Your task to perform on an android device: Open the calendar app, open the side menu, and click the "Day" option Image 0: 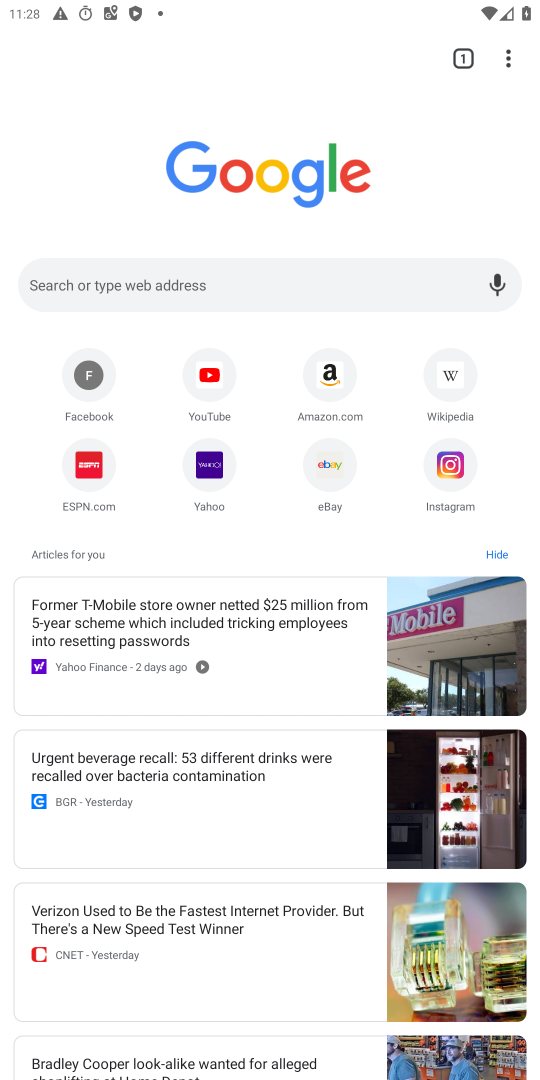
Step 0: press home button
Your task to perform on an android device: Open the calendar app, open the side menu, and click the "Day" option Image 1: 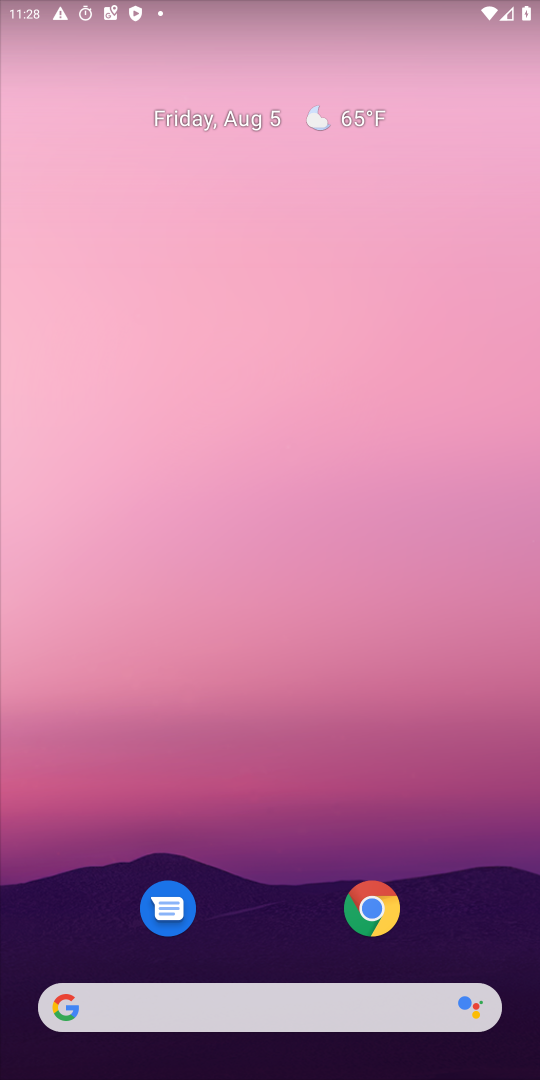
Step 1: drag from (82, 923) to (349, 273)
Your task to perform on an android device: Open the calendar app, open the side menu, and click the "Day" option Image 2: 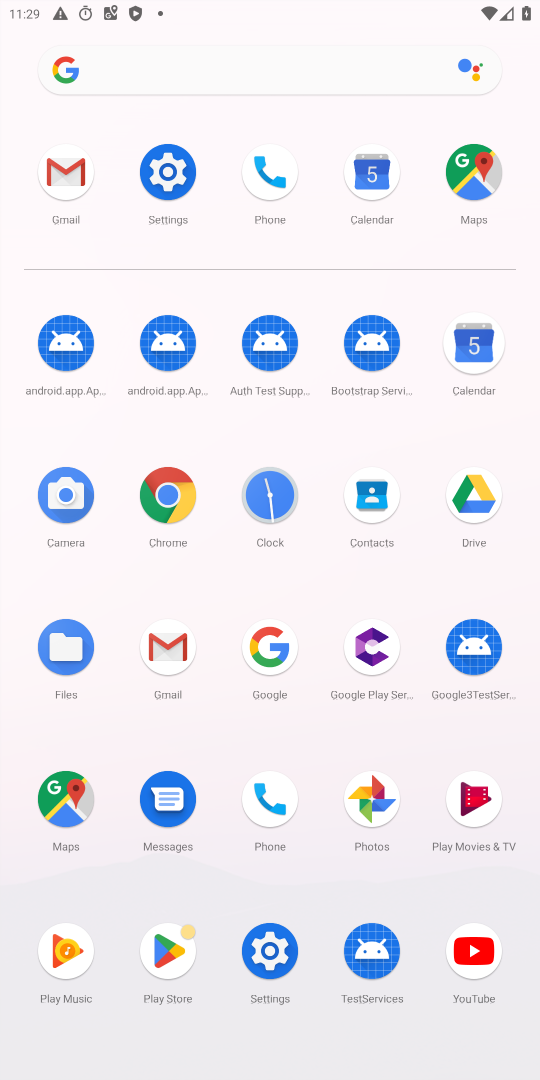
Step 2: click (352, 495)
Your task to perform on an android device: Open the calendar app, open the side menu, and click the "Day" option Image 3: 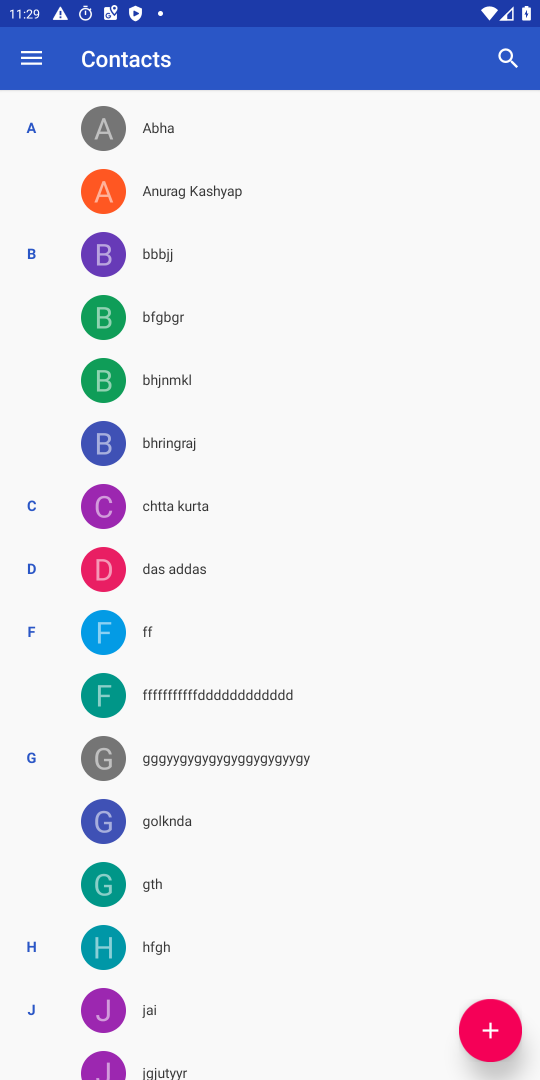
Step 3: press home button
Your task to perform on an android device: Open the calendar app, open the side menu, and click the "Day" option Image 4: 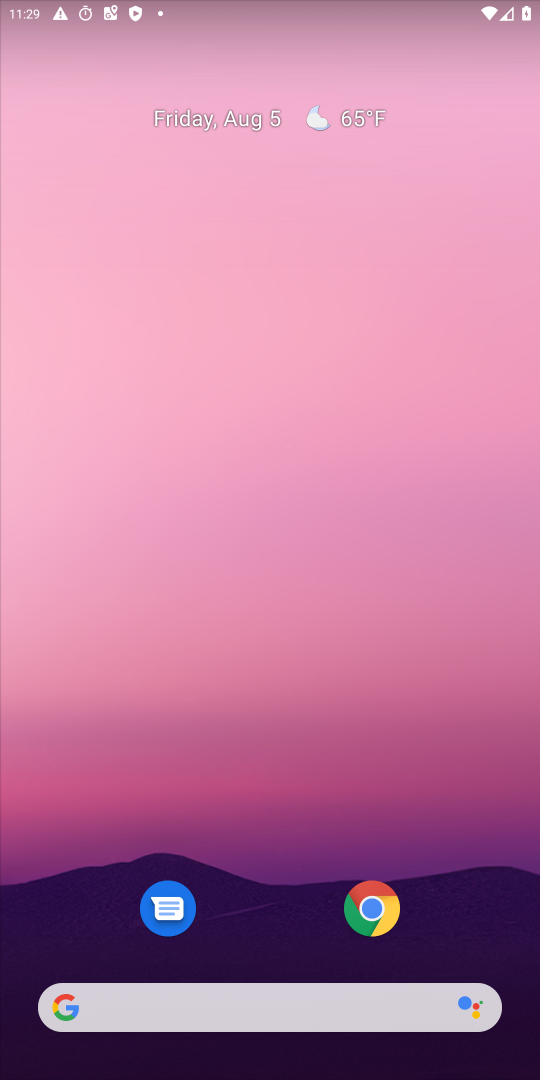
Step 4: click (119, 278)
Your task to perform on an android device: Open the calendar app, open the side menu, and click the "Day" option Image 5: 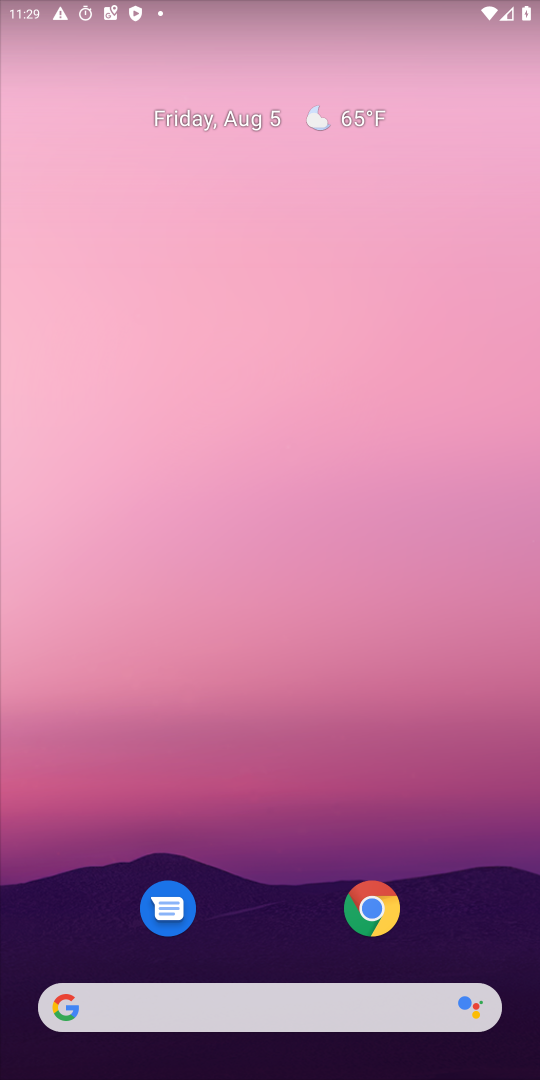
Step 5: drag from (40, 1045) to (354, 193)
Your task to perform on an android device: Open the calendar app, open the side menu, and click the "Day" option Image 6: 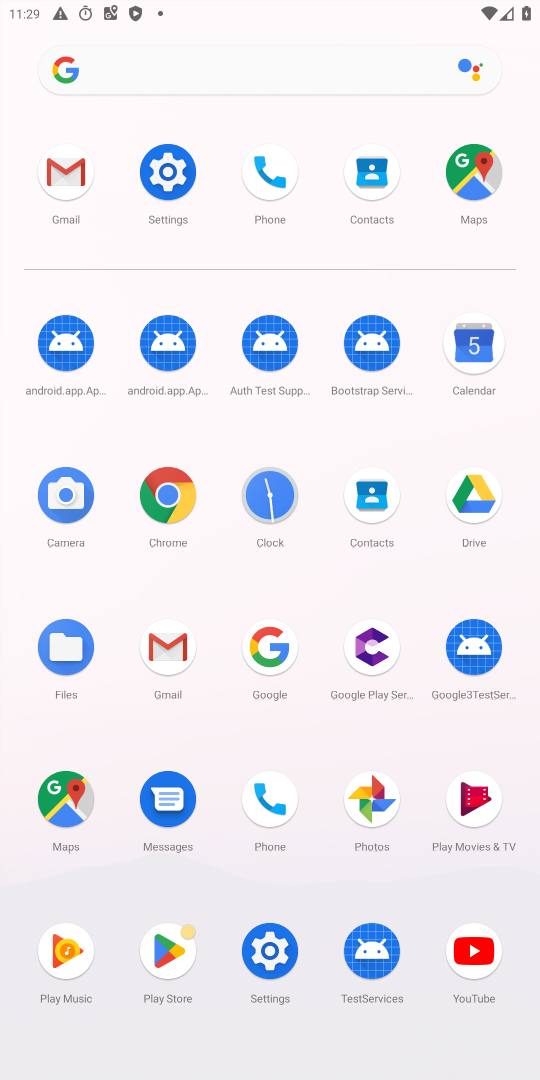
Step 6: click (482, 355)
Your task to perform on an android device: Open the calendar app, open the side menu, and click the "Day" option Image 7: 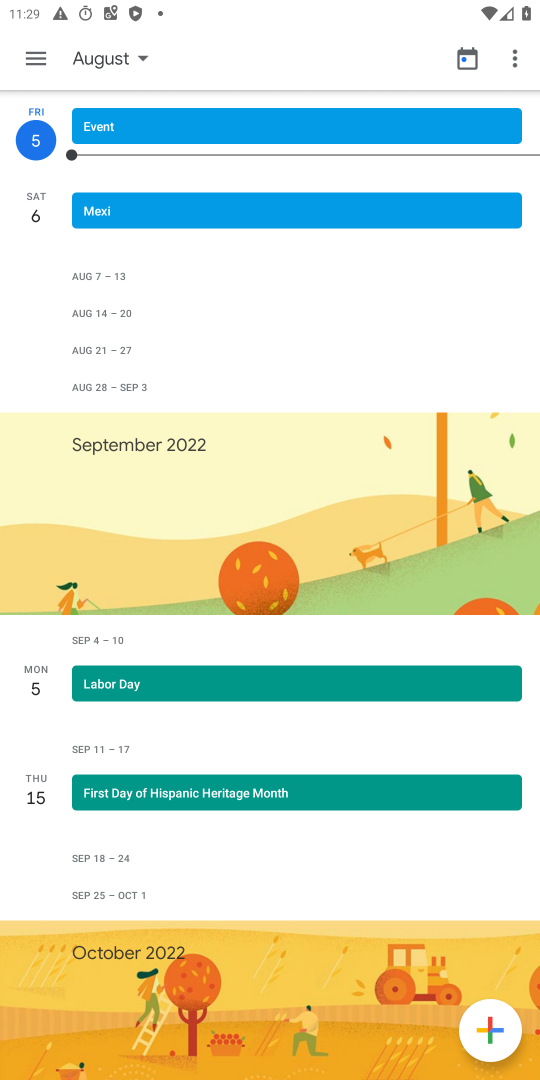
Step 7: click (119, 59)
Your task to perform on an android device: Open the calendar app, open the side menu, and click the "Day" option Image 8: 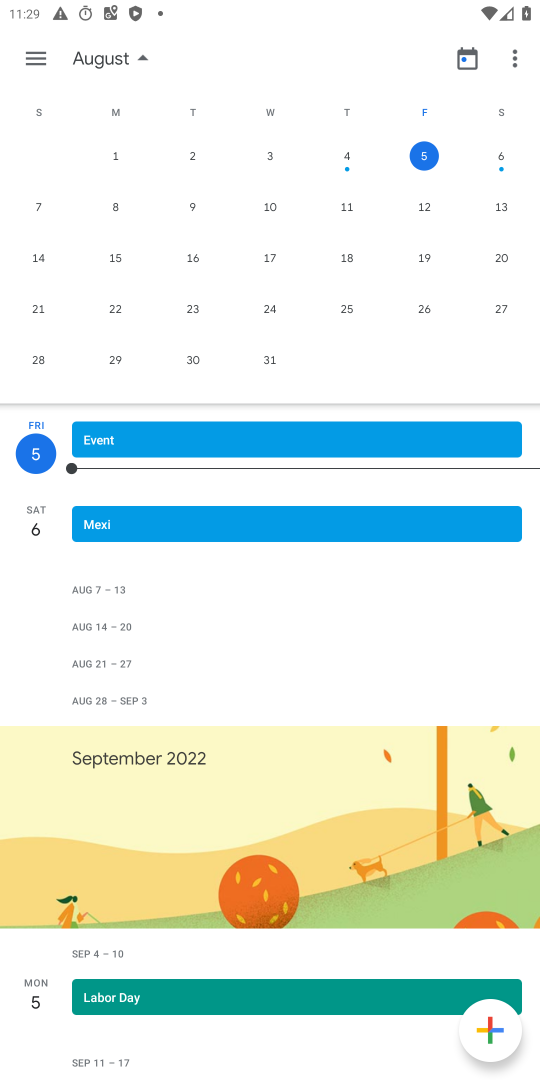
Step 8: click (48, 68)
Your task to perform on an android device: Open the calendar app, open the side menu, and click the "Day" option Image 9: 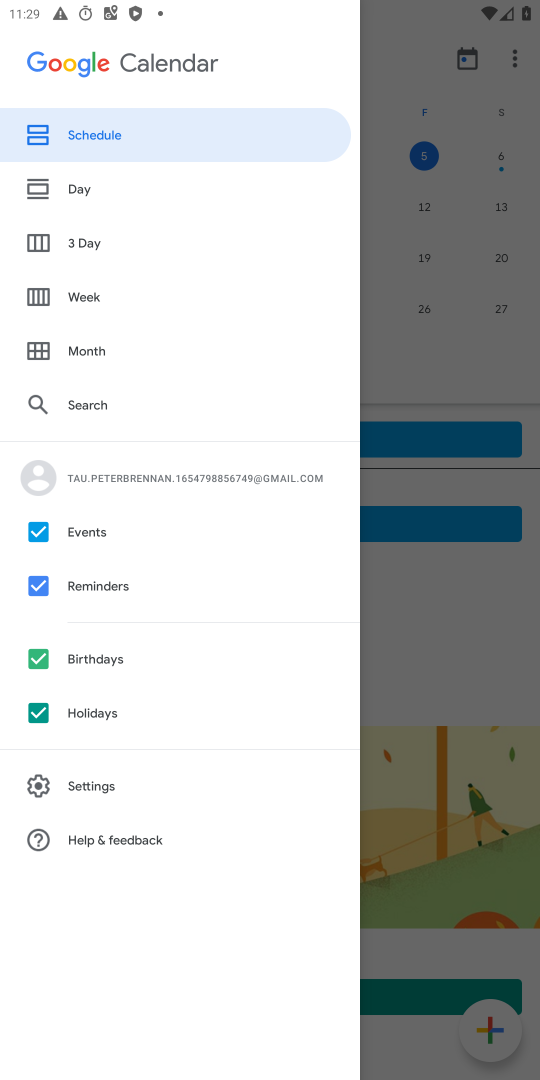
Step 9: click (101, 194)
Your task to perform on an android device: Open the calendar app, open the side menu, and click the "Day" option Image 10: 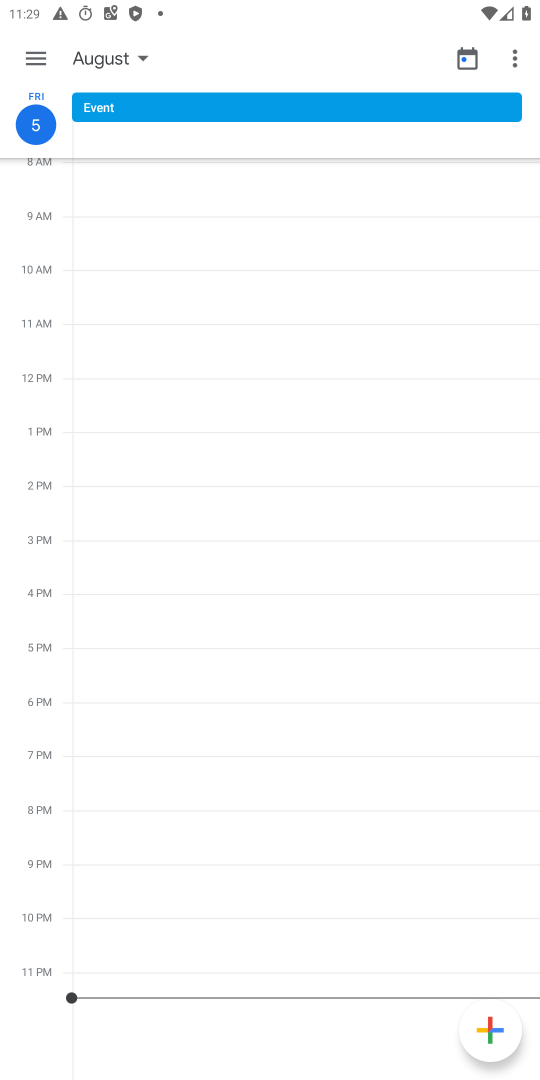
Step 10: click (139, 57)
Your task to perform on an android device: Open the calendar app, open the side menu, and click the "Day" option Image 11: 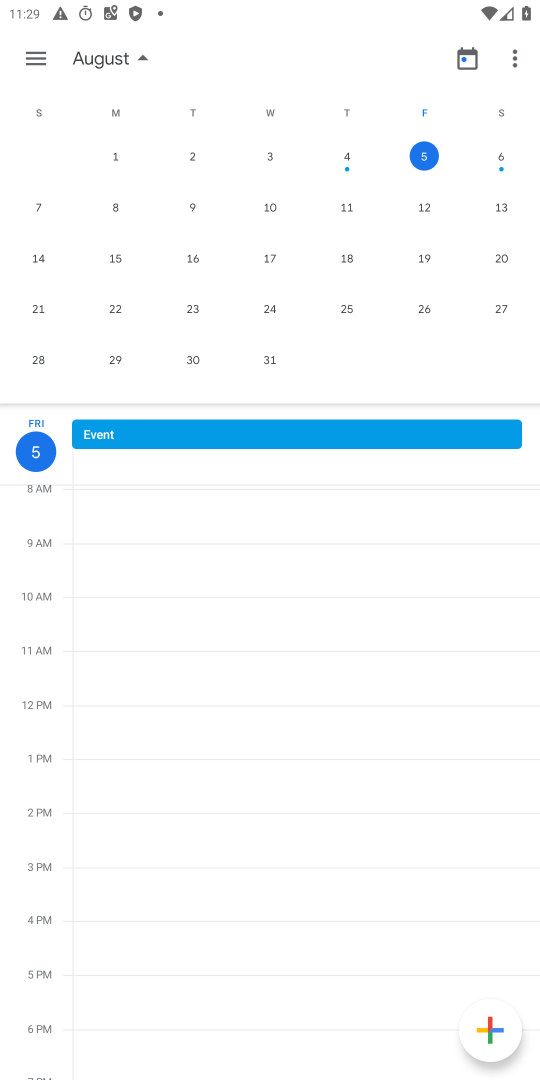
Step 11: task complete